Your task to perform on an android device: Open settings on Google Maps Image 0: 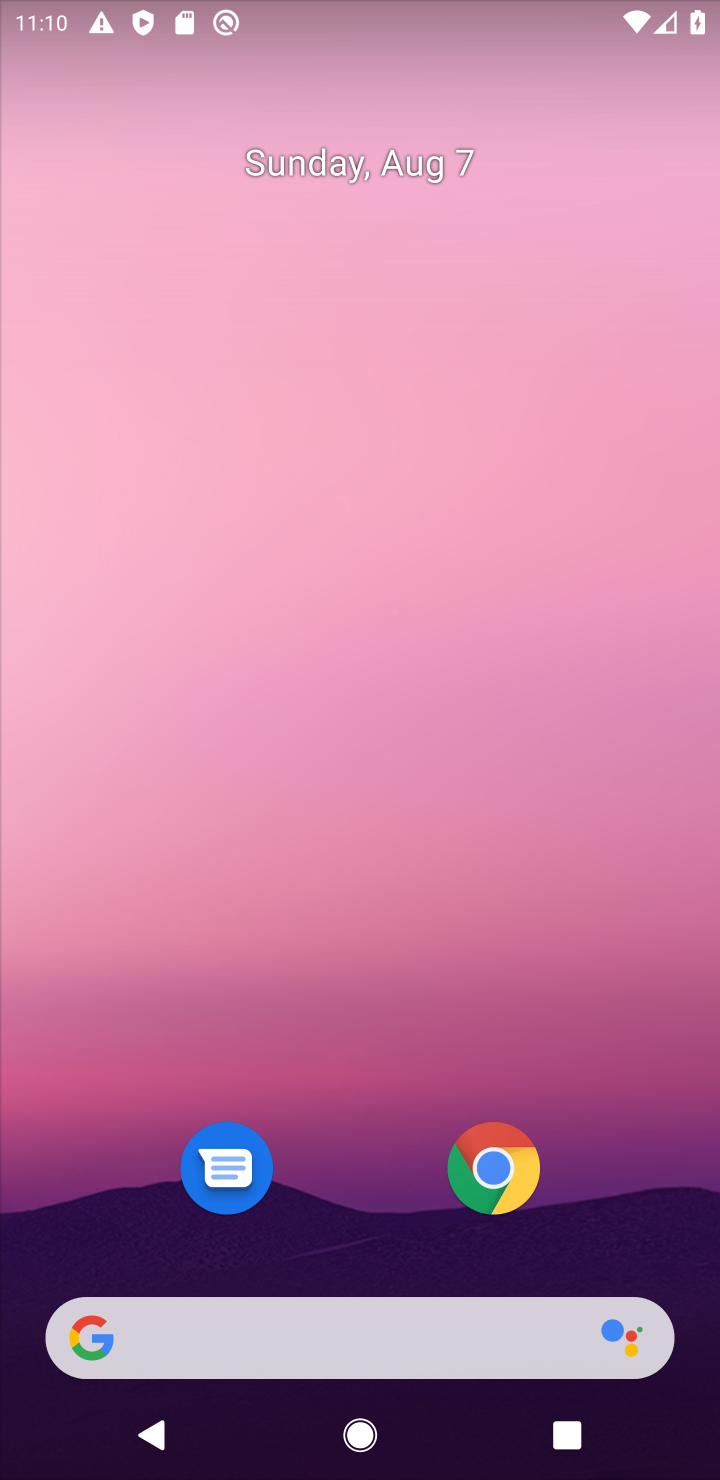
Step 0: drag from (137, 1405) to (391, 403)
Your task to perform on an android device: Open settings on Google Maps Image 1: 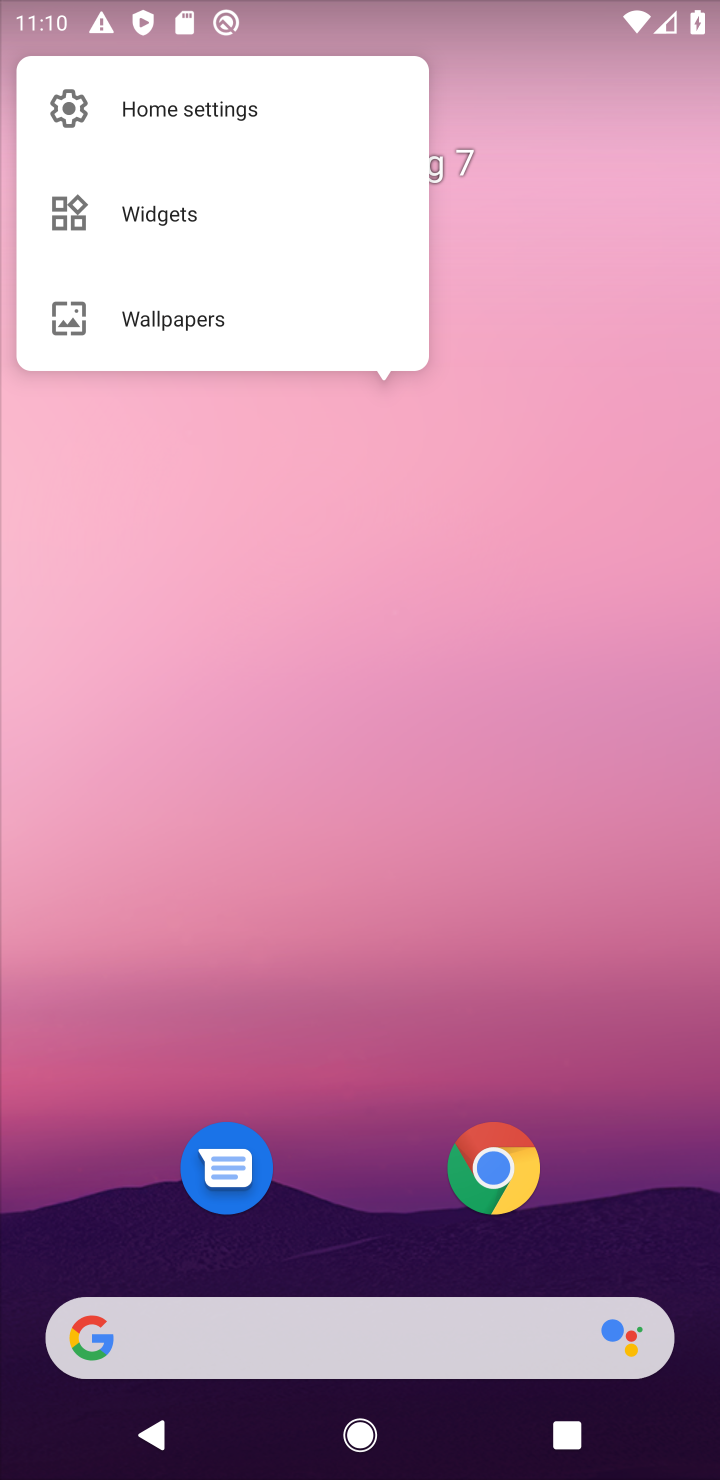
Step 1: click (55, 1417)
Your task to perform on an android device: Open settings on Google Maps Image 2: 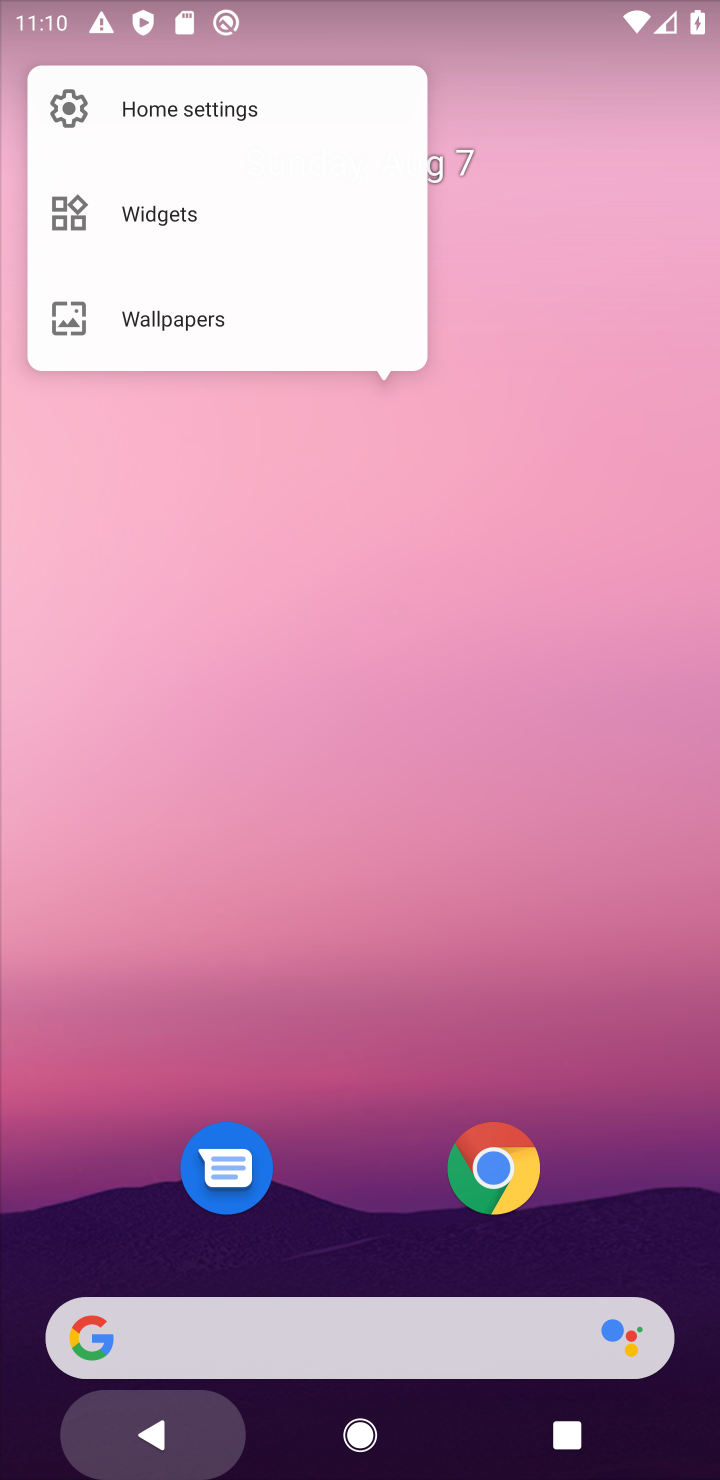
Step 2: drag from (59, 1414) to (542, 327)
Your task to perform on an android device: Open settings on Google Maps Image 3: 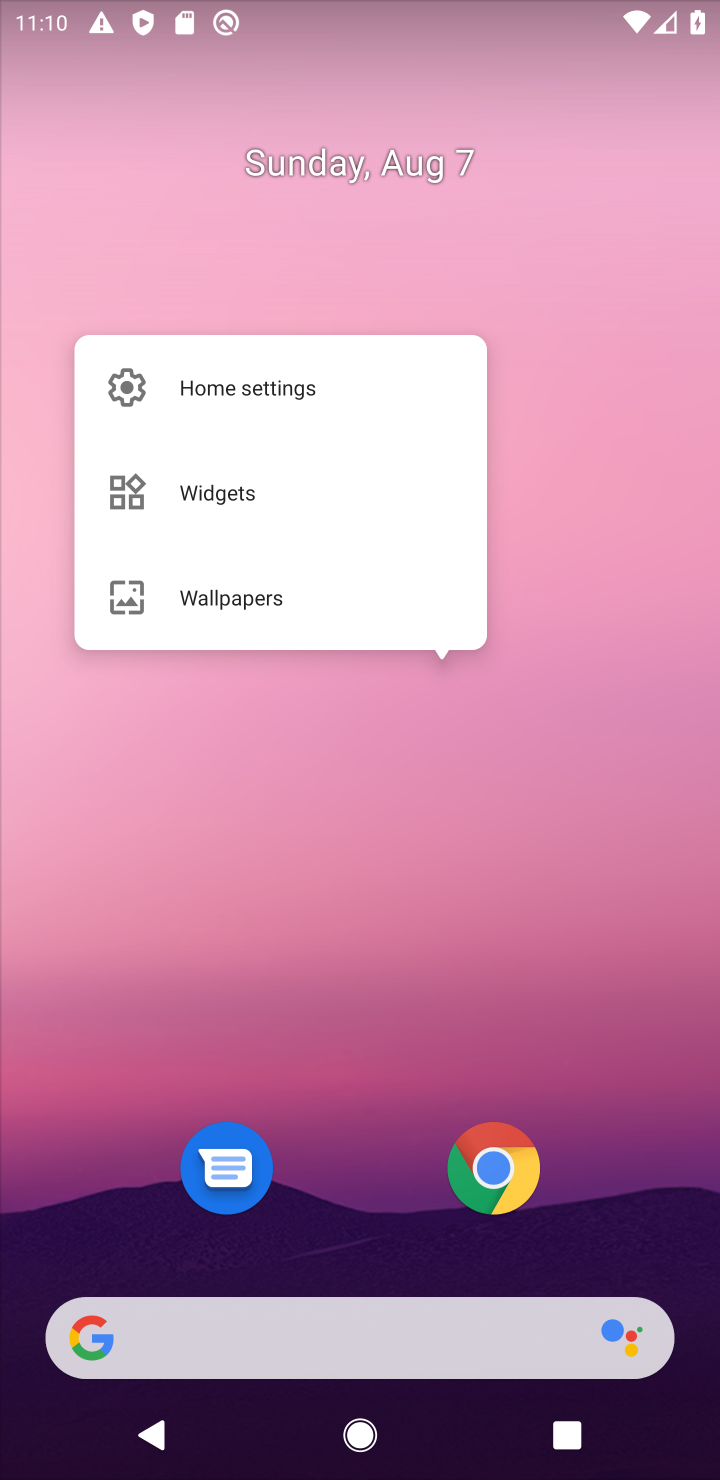
Step 3: click (55, 1200)
Your task to perform on an android device: Open settings on Google Maps Image 4: 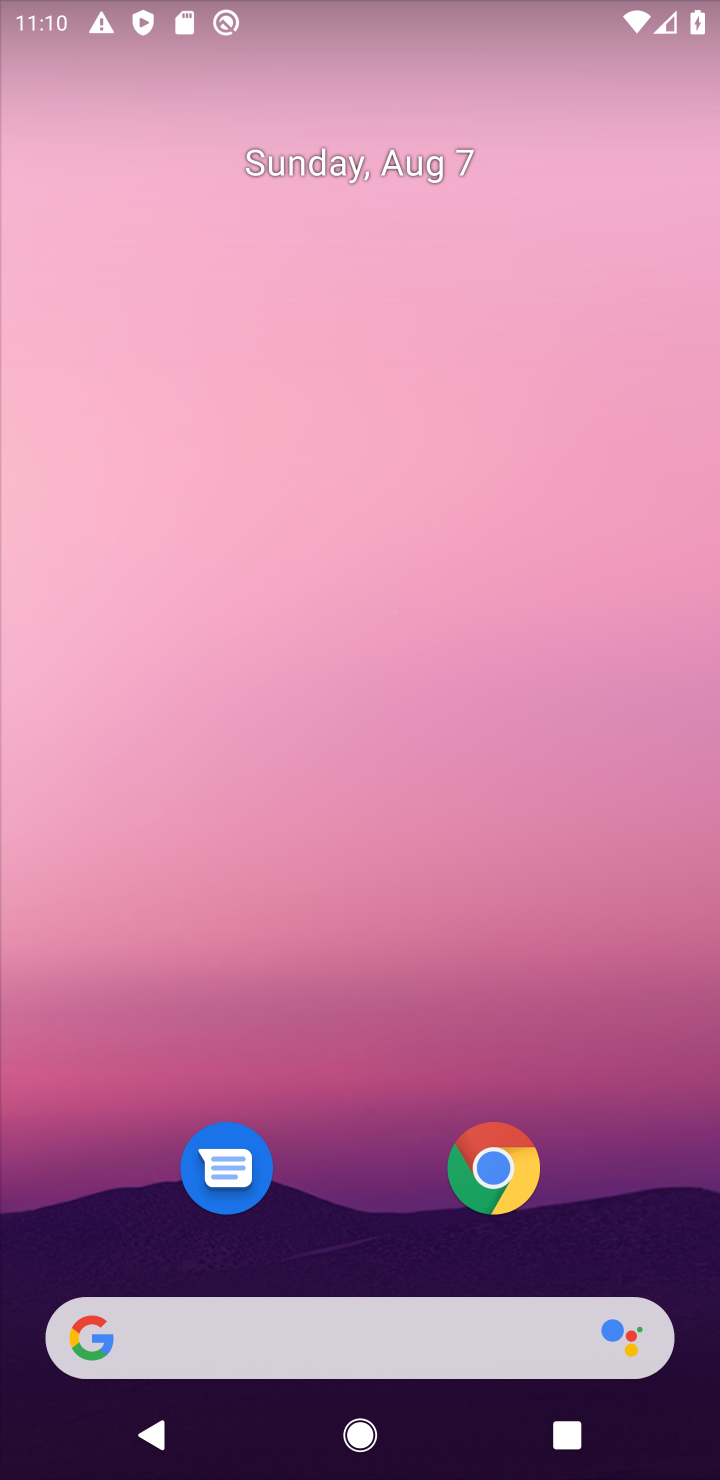
Step 4: drag from (114, 1418) to (494, 677)
Your task to perform on an android device: Open settings on Google Maps Image 5: 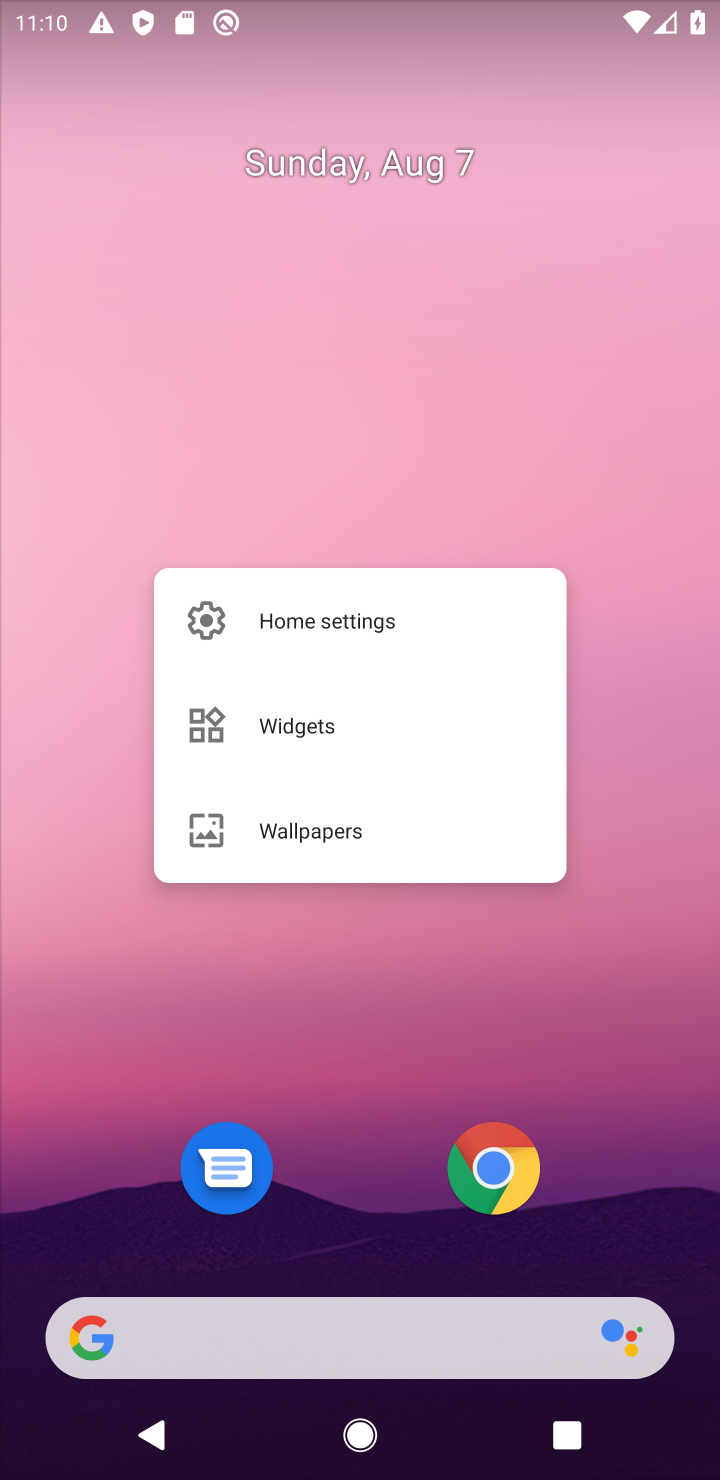
Step 5: click (117, 1396)
Your task to perform on an android device: Open settings on Google Maps Image 6: 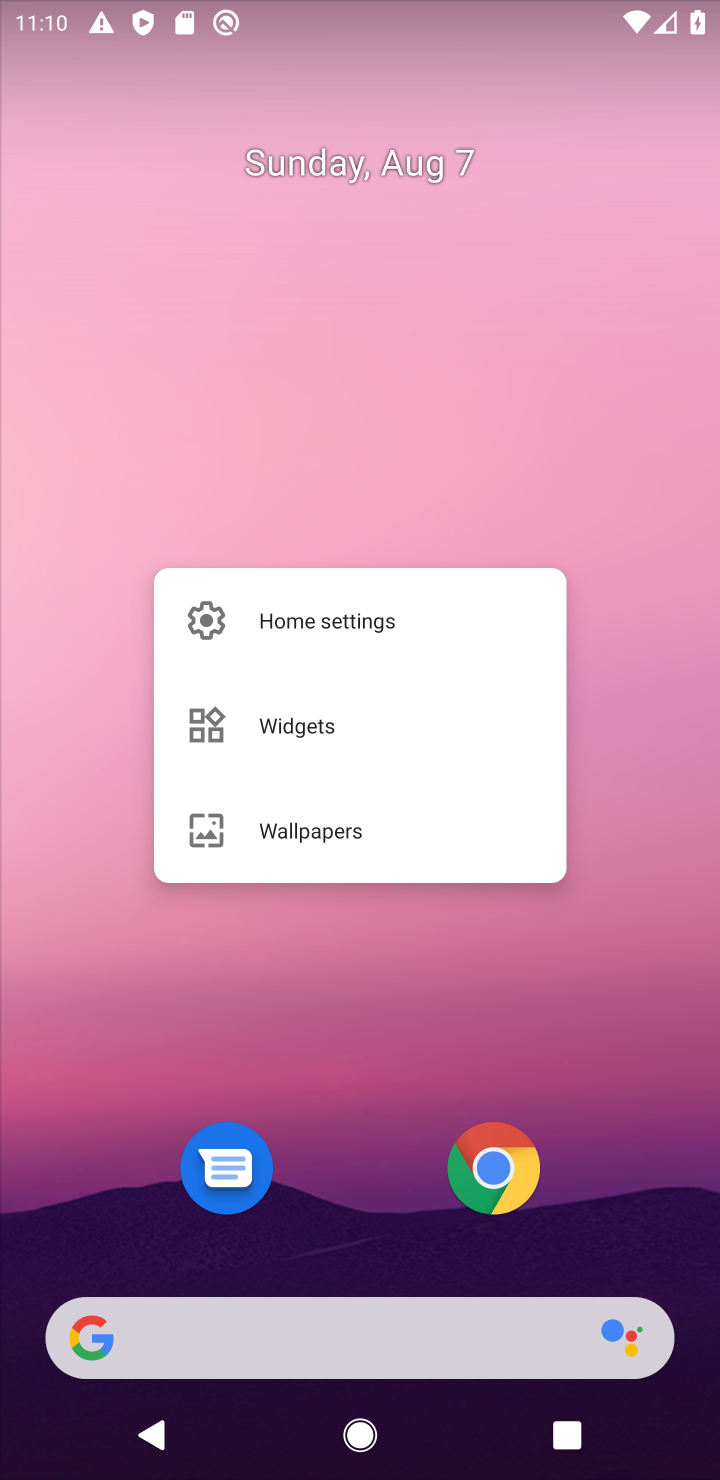
Step 6: task complete